Your task to perform on an android device: turn notification dots off Image 0: 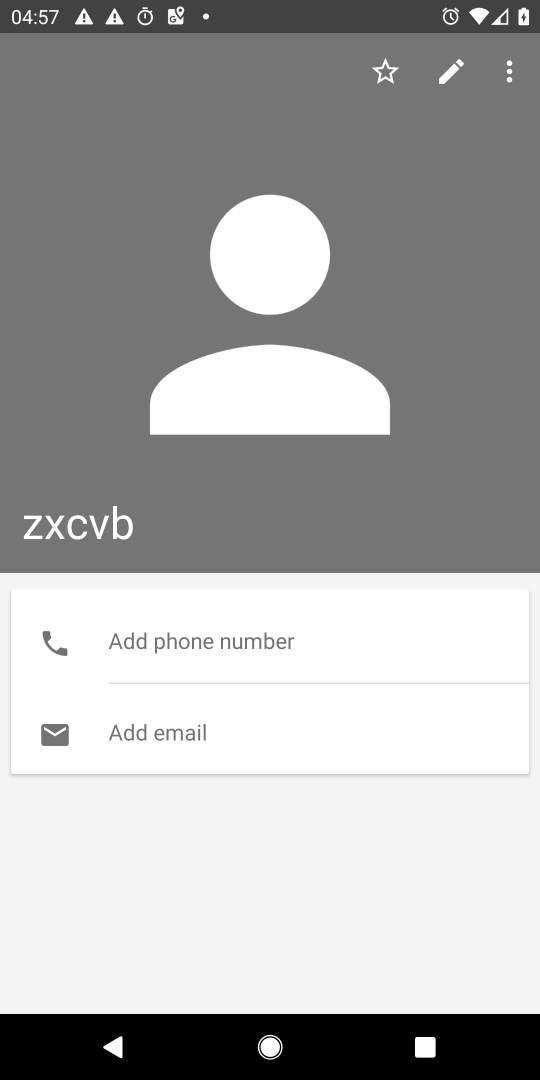
Step 0: press home button
Your task to perform on an android device: turn notification dots off Image 1: 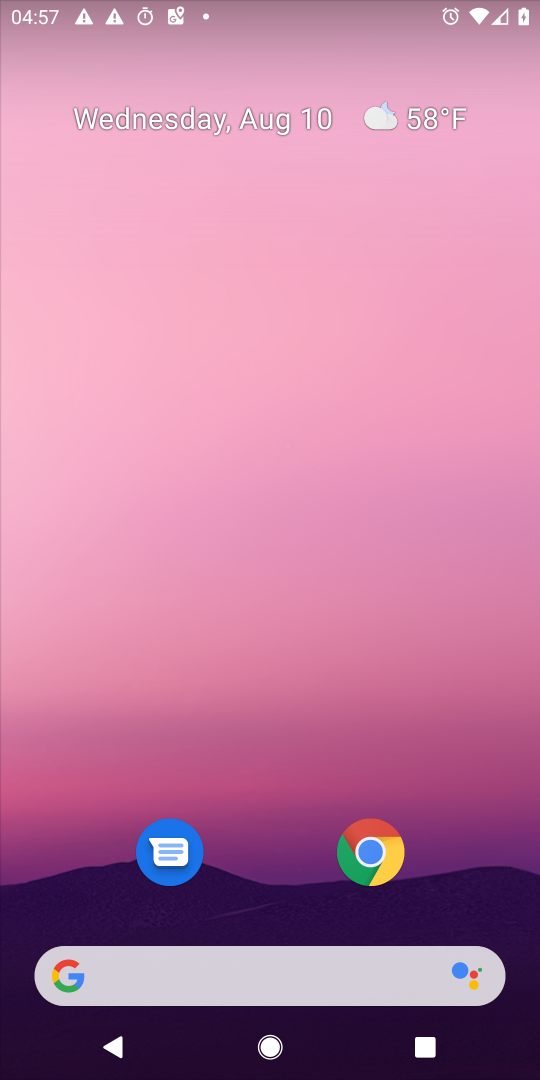
Step 1: drag from (271, 843) to (230, 109)
Your task to perform on an android device: turn notification dots off Image 2: 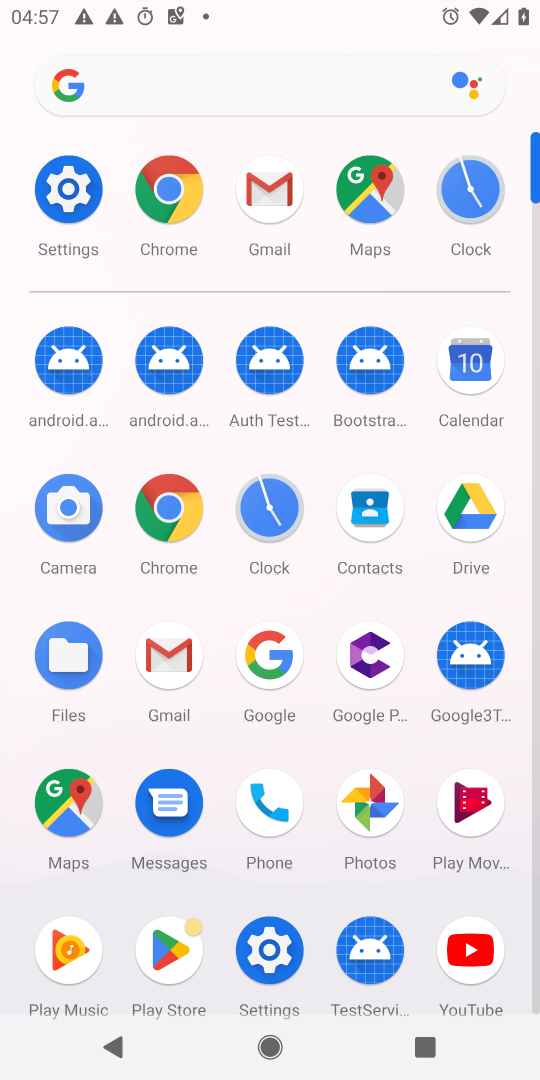
Step 2: click (277, 944)
Your task to perform on an android device: turn notification dots off Image 3: 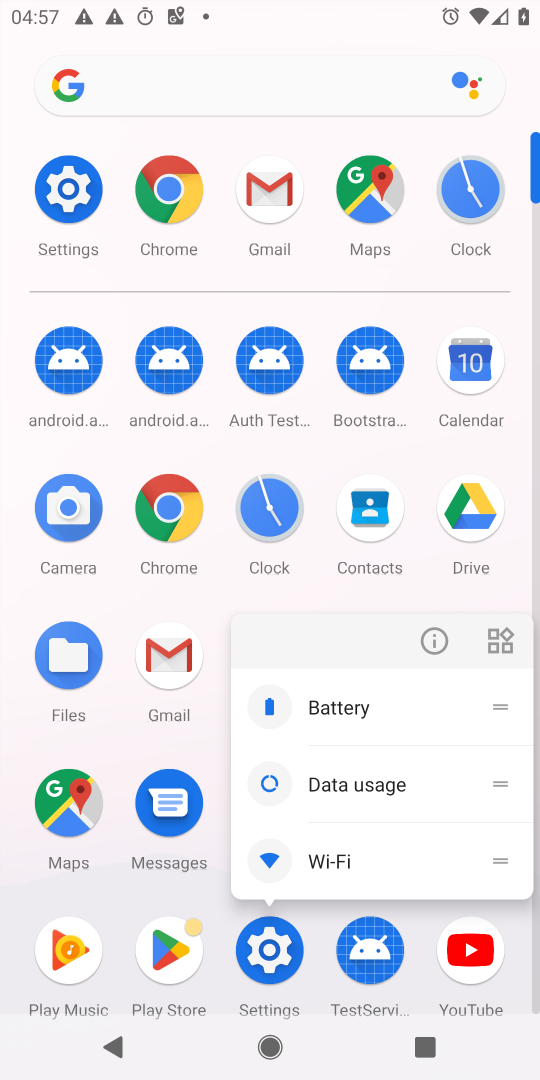
Step 3: click (277, 944)
Your task to perform on an android device: turn notification dots off Image 4: 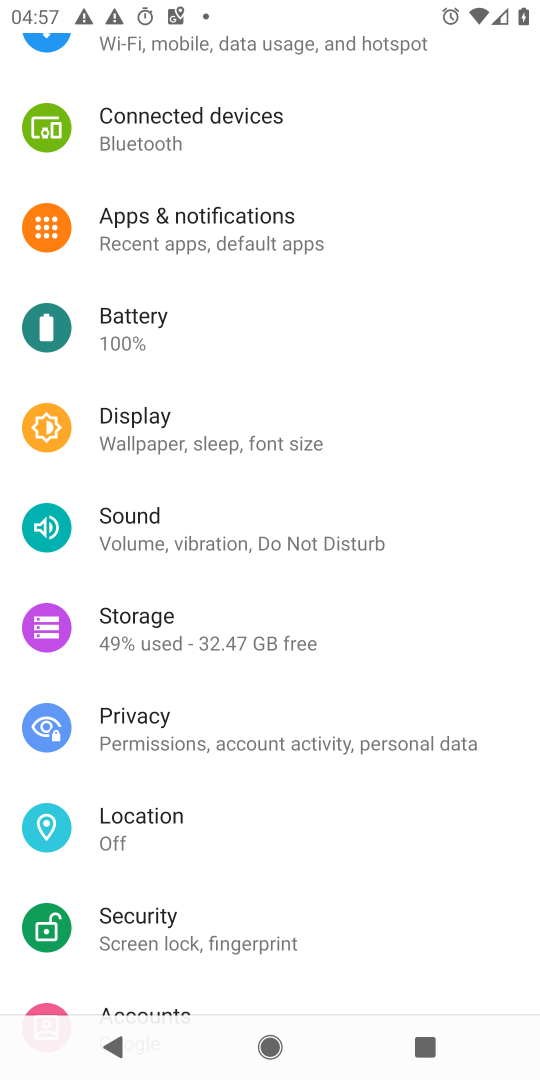
Step 4: click (214, 244)
Your task to perform on an android device: turn notification dots off Image 5: 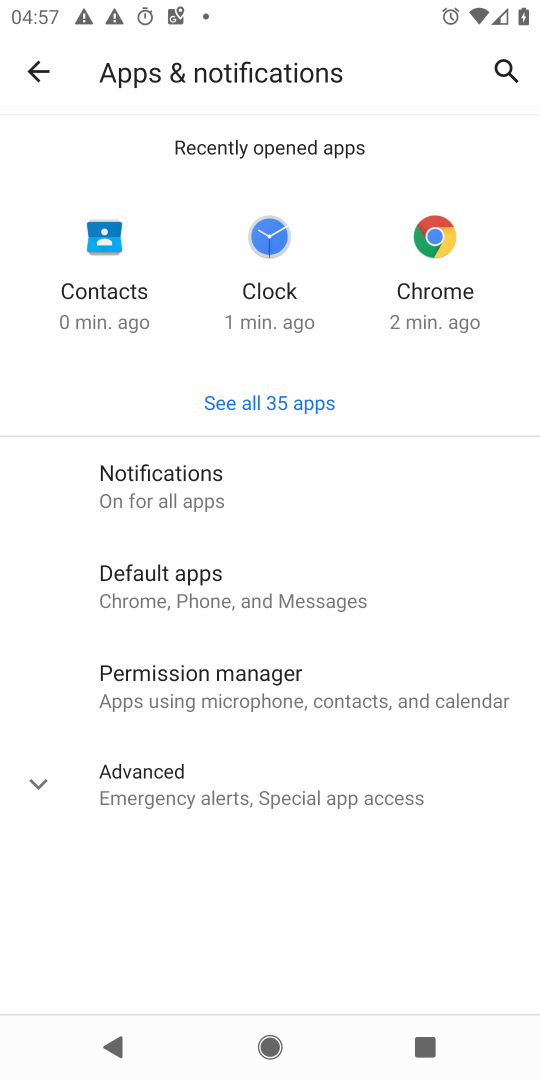
Step 5: click (179, 472)
Your task to perform on an android device: turn notification dots off Image 6: 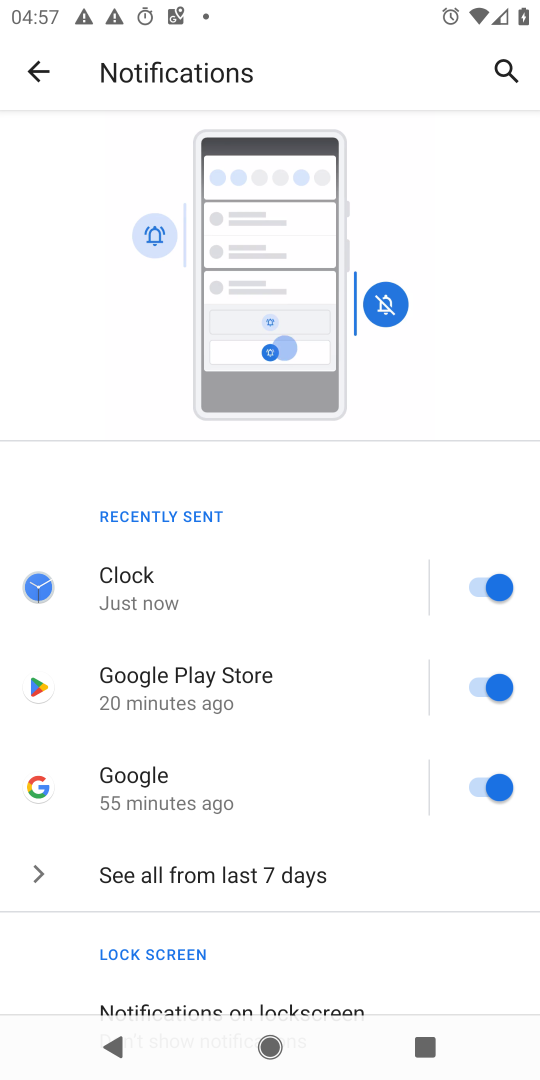
Step 6: drag from (258, 941) to (262, 275)
Your task to perform on an android device: turn notification dots off Image 7: 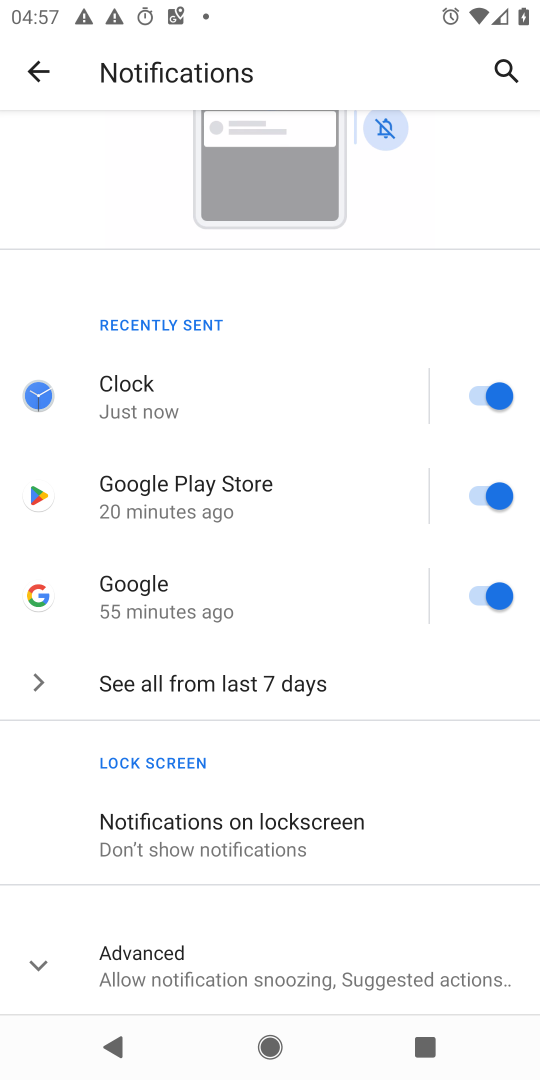
Step 7: click (206, 958)
Your task to perform on an android device: turn notification dots off Image 8: 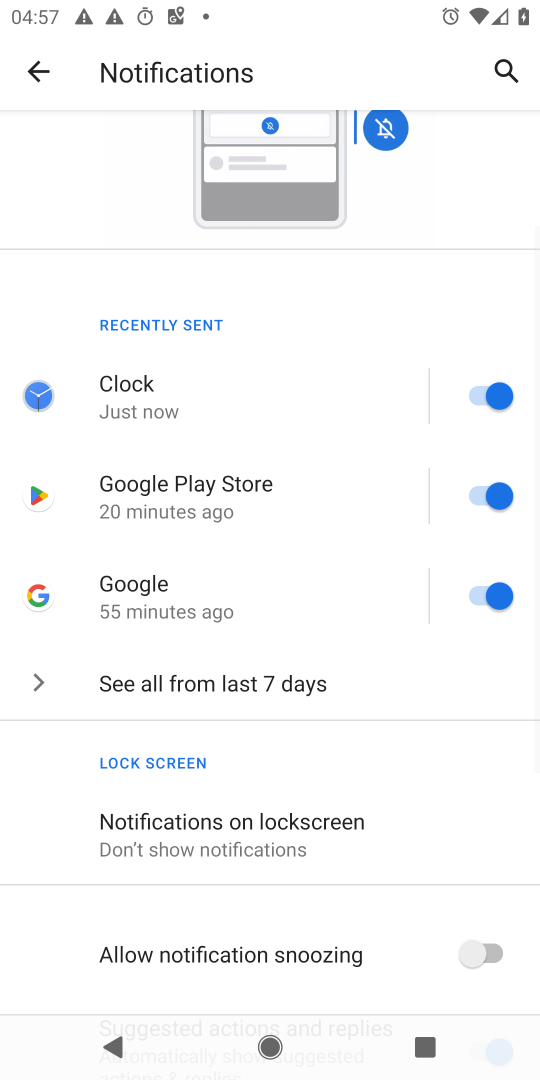
Step 8: drag from (419, 821) to (331, 295)
Your task to perform on an android device: turn notification dots off Image 9: 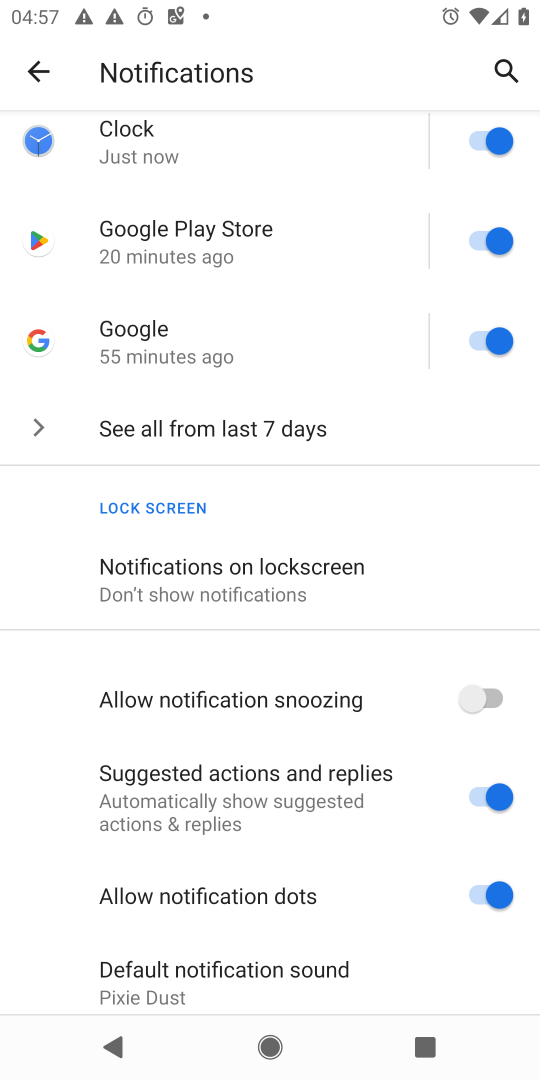
Step 9: click (504, 900)
Your task to perform on an android device: turn notification dots off Image 10: 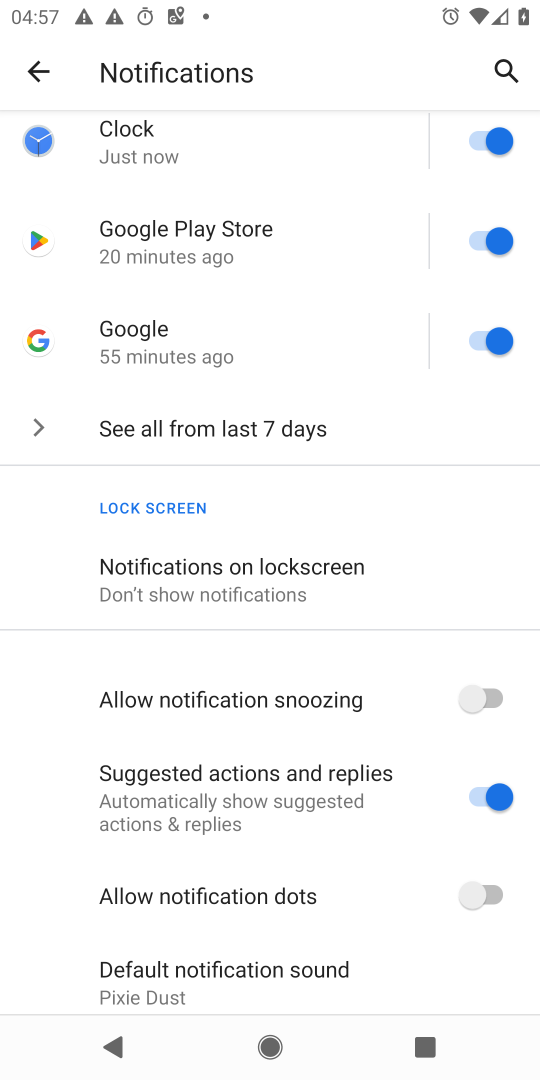
Step 10: task complete